Your task to perform on an android device: Show me the alarms in the clock app Image 0: 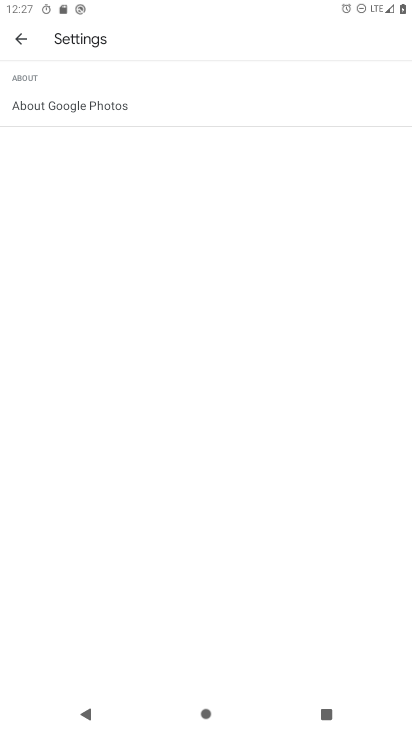
Step 0: press home button
Your task to perform on an android device: Show me the alarms in the clock app Image 1: 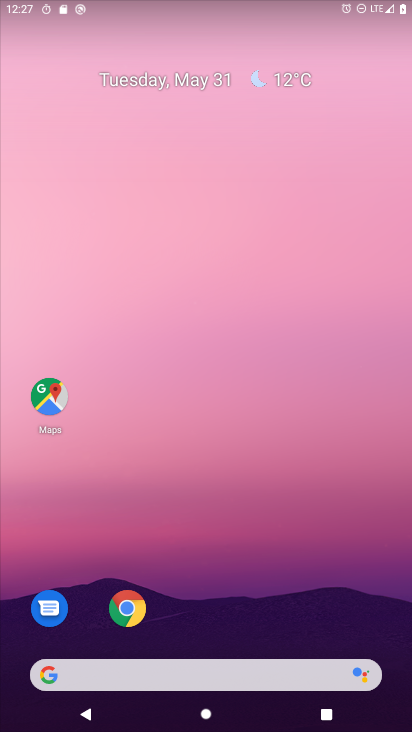
Step 1: drag from (280, 645) to (273, 3)
Your task to perform on an android device: Show me the alarms in the clock app Image 2: 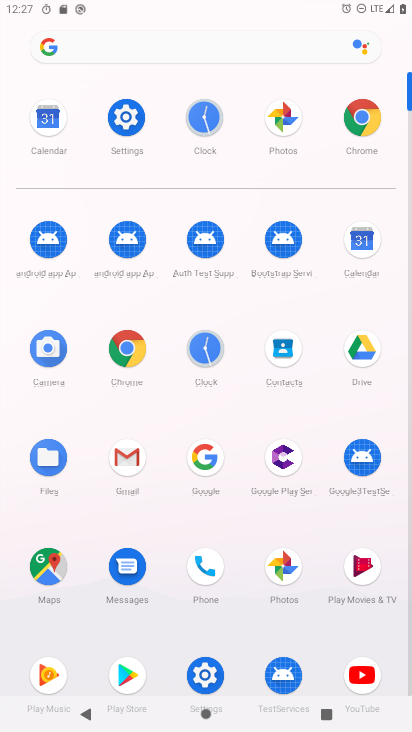
Step 2: click (204, 113)
Your task to perform on an android device: Show me the alarms in the clock app Image 3: 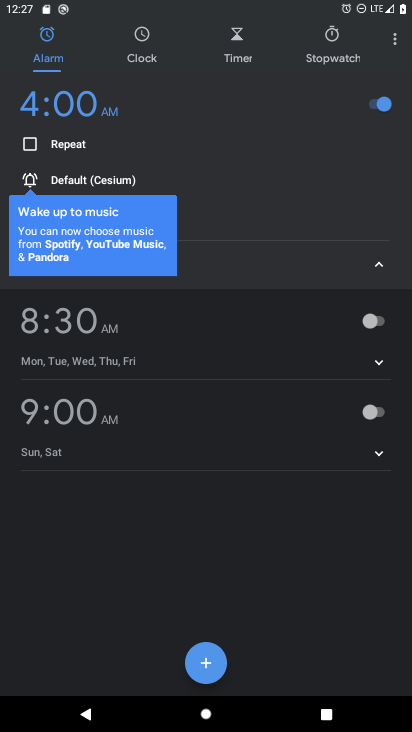
Step 3: task complete